Your task to perform on an android device: toggle pop-ups in chrome Image 0: 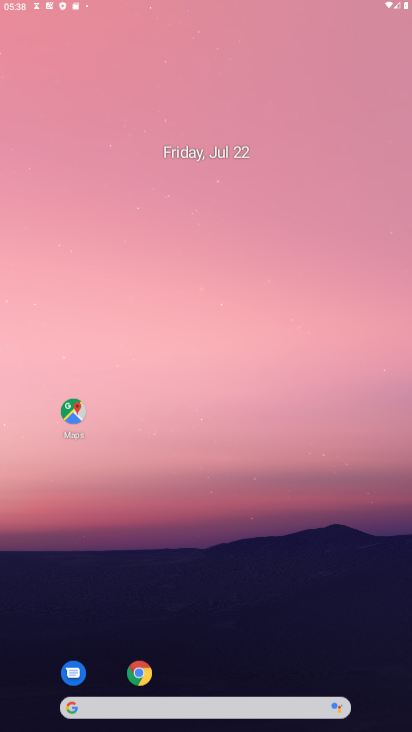
Step 0: press home button
Your task to perform on an android device: toggle pop-ups in chrome Image 1: 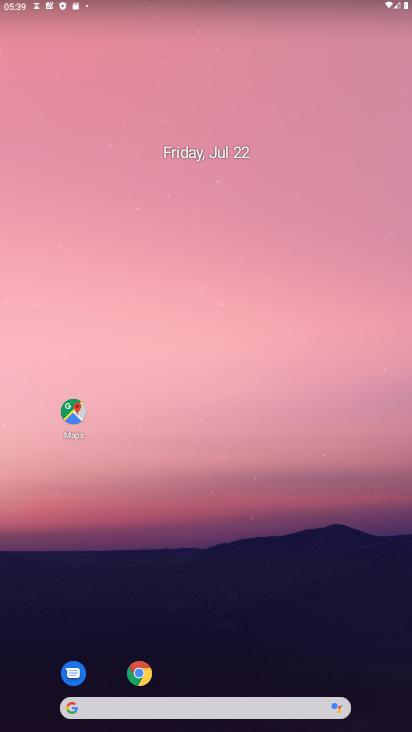
Step 1: drag from (222, 648) to (197, 51)
Your task to perform on an android device: toggle pop-ups in chrome Image 2: 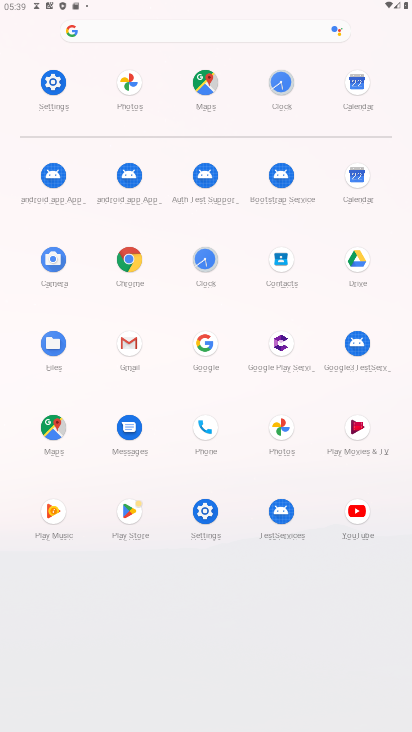
Step 2: click (123, 273)
Your task to perform on an android device: toggle pop-ups in chrome Image 3: 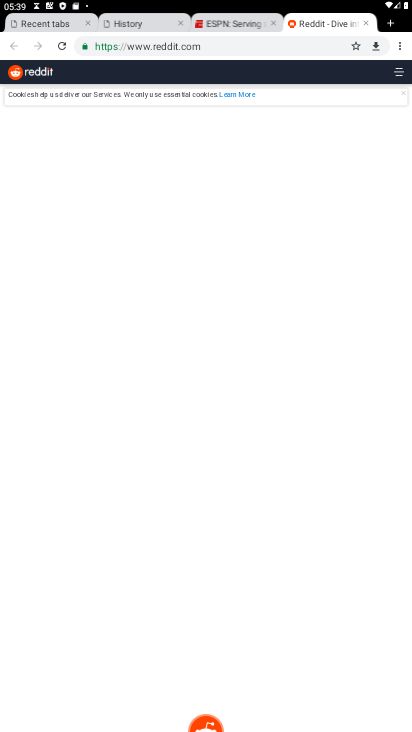
Step 3: drag from (406, 49) to (324, 316)
Your task to perform on an android device: toggle pop-ups in chrome Image 4: 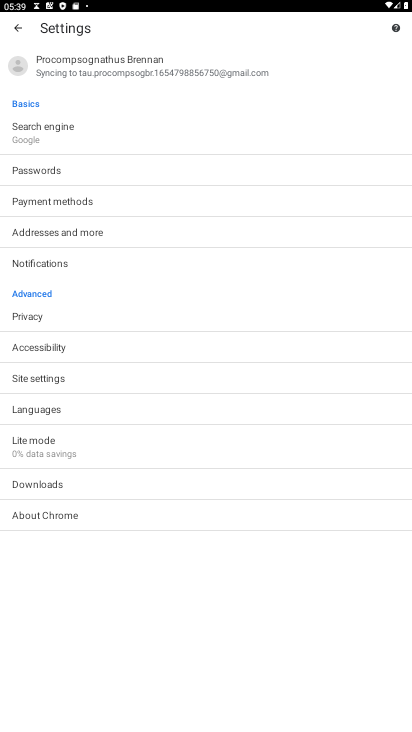
Step 4: click (47, 379)
Your task to perform on an android device: toggle pop-ups in chrome Image 5: 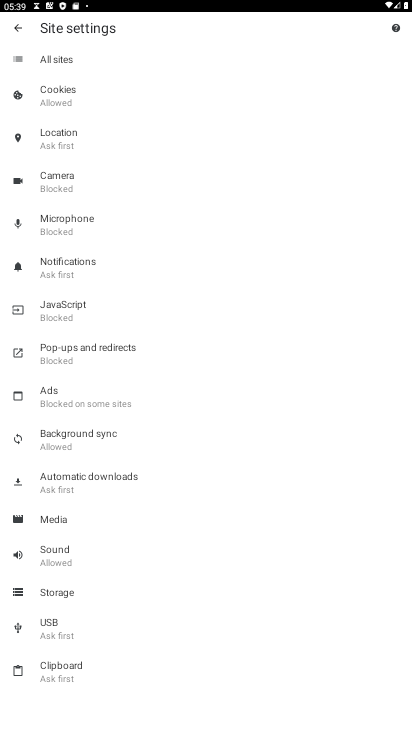
Step 5: click (59, 344)
Your task to perform on an android device: toggle pop-ups in chrome Image 6: 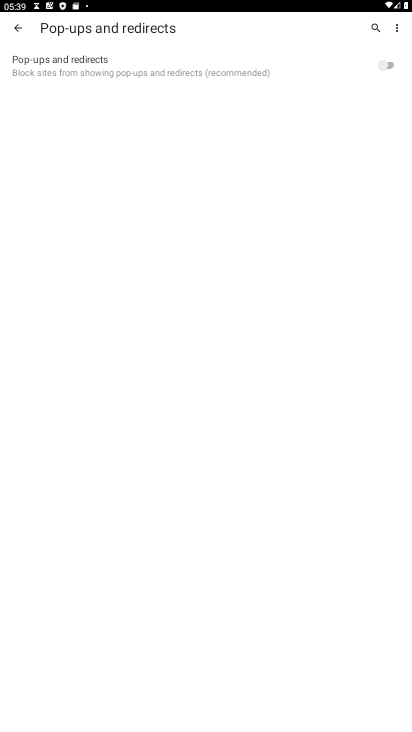
Step 6: click (389, 70)
Your task to perform on an android device: toggle pop-ups in chrome Image 7: 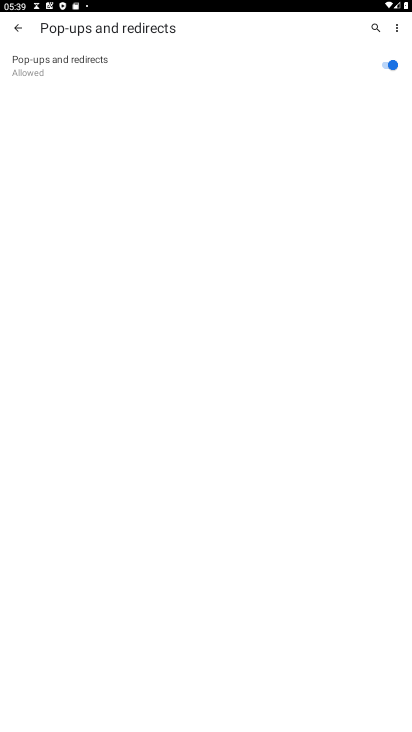
Step 7: task complete